Your task to perform on an android device: change the clock display to show seconds Image 0: 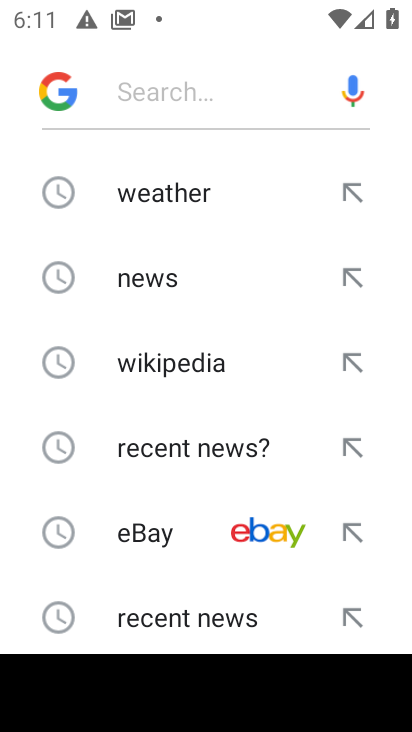
Step 0: press home button
Your task to perform on an android device: change the clock display to show seconds Image 1: 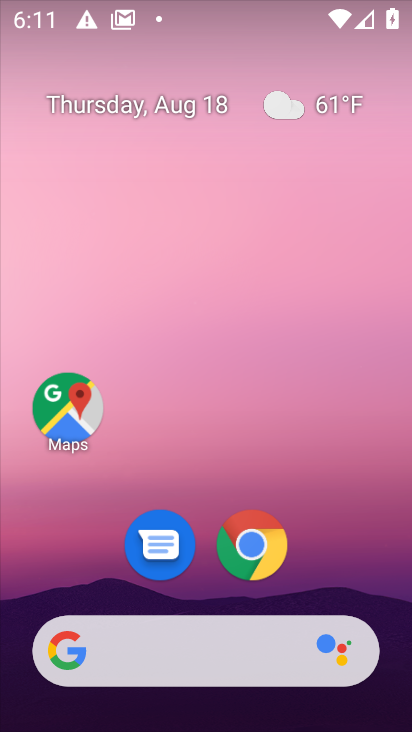
Step 1: drag from (311, 582) to (213, 116)
Your task to perform on an android device: change the clock display to show seconds Image 2: 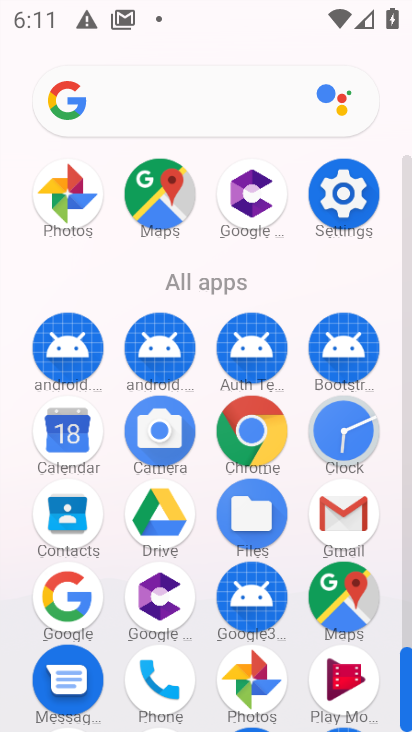
Step 2: click (347, 440)
Your task to perform on an android device: change the clock display to show seconds Image 3: 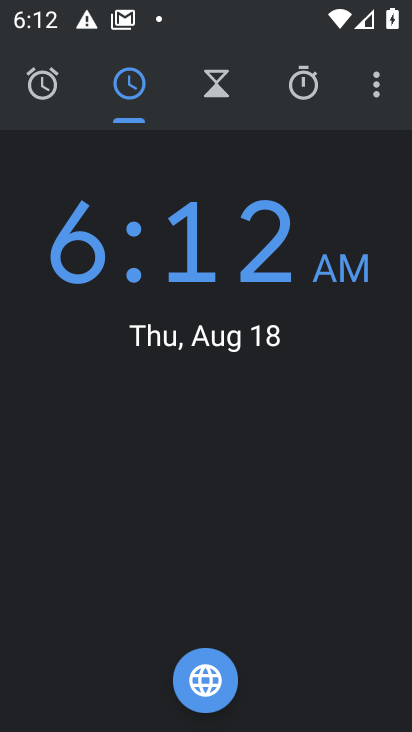
Step 3: click (376, 86)
Your task to perform on an android device: change the clock display to show seconds Image 4: 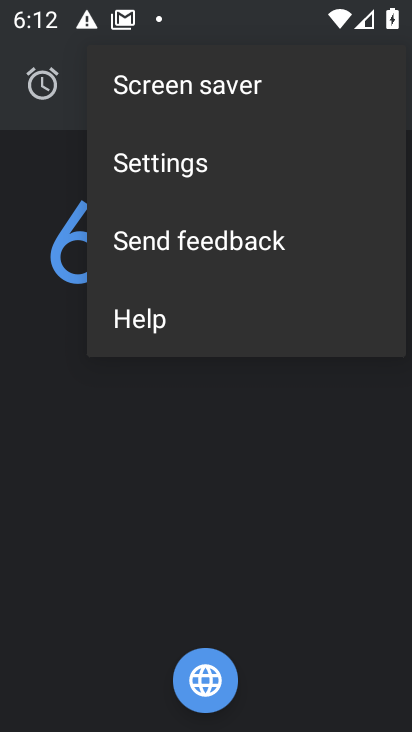
Step 4: click (174, 159)
Your task to perform on an android device: change the clock display to show seconds Image 5: 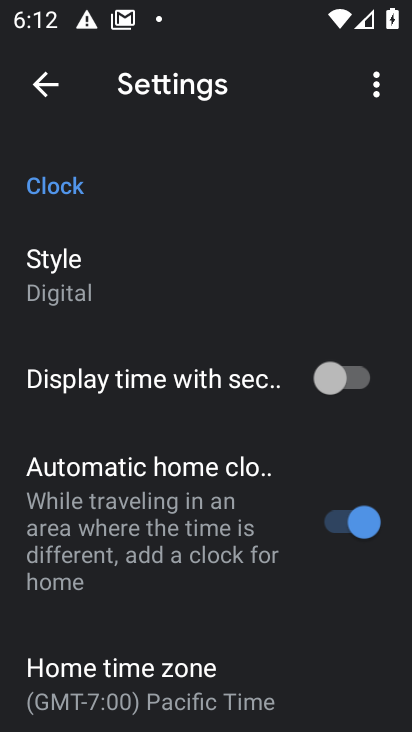
Step 5: click (328, 368)
Your task to perform on an android device: change the clock display to show seconds Image 6: 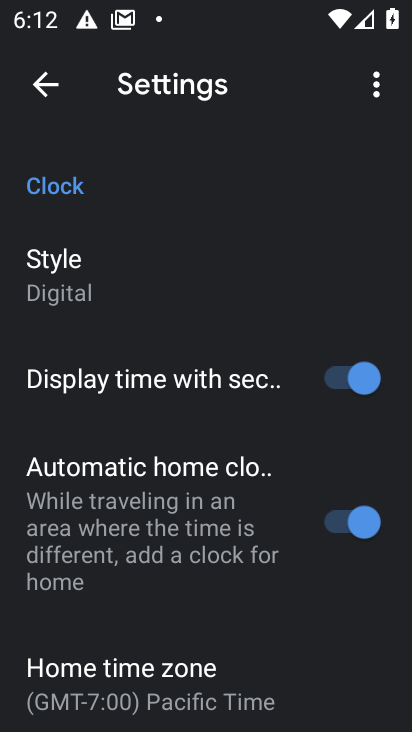
Step 6: task complete